Your task to perform on an android device: turn on bluetooth scan Image 0: 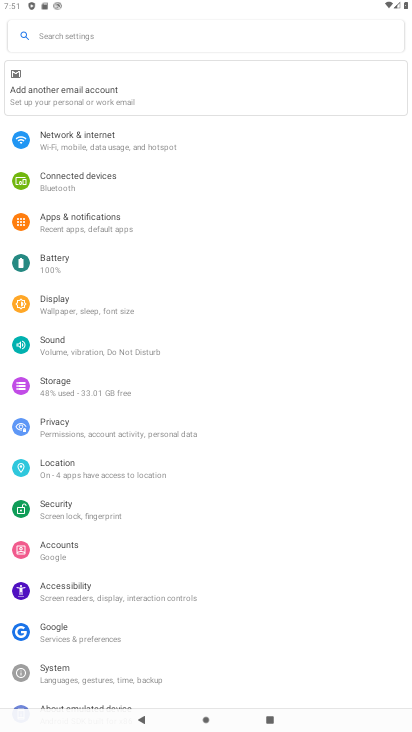
Step 0: click (142, 469)
Your task to perform on an android device: turn on bluetooth scan Image 1: 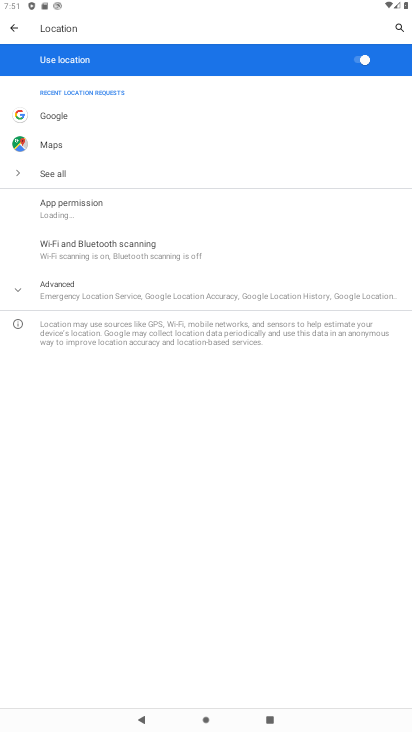
Step 1: click (183, 254)
Your task to perform on an android device: turn on bluetooth scan Image 2: 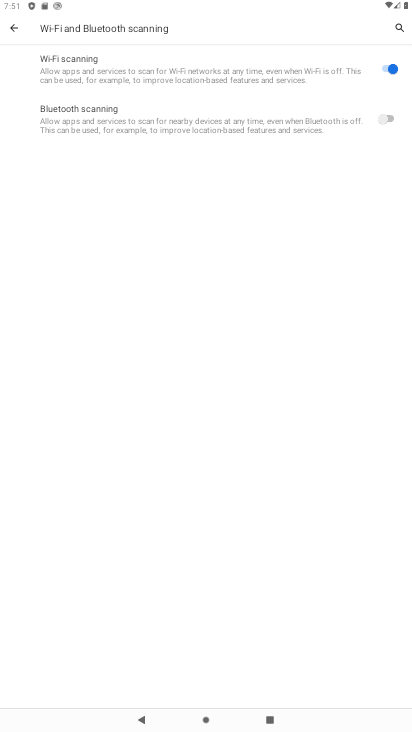
Step 2: click (359, 116)
Your task to perform on an android device: turn on bluetooth scan Image 3: 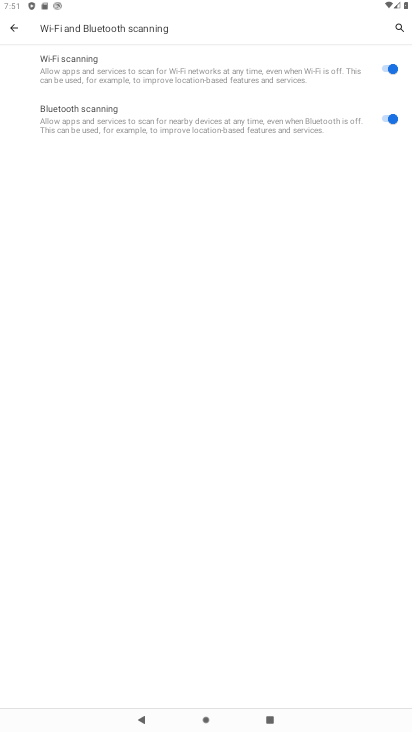
Step 3: task complete